Your task to perform on an android device: Open notification settings Image 0: 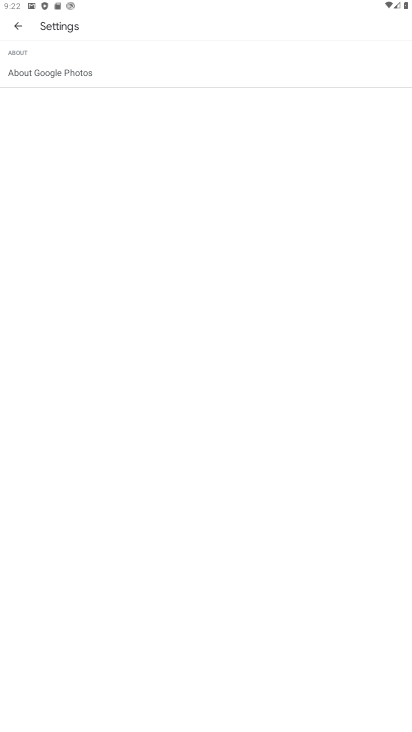
Step 0: press home button
Your task to perform on an android device: Open notification settings Image 1: 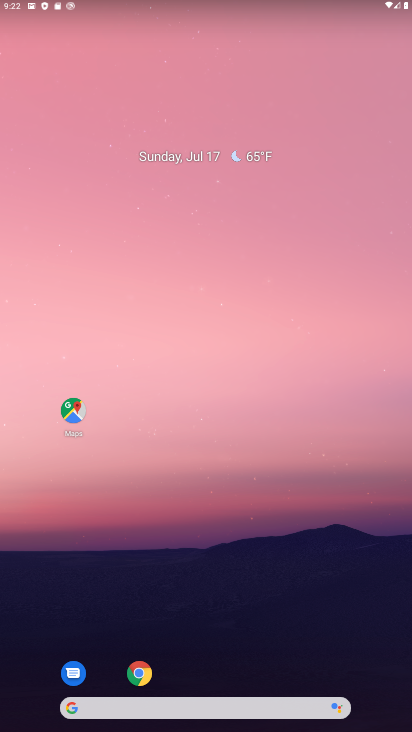
Step 1: drag from (218, 610) to (187, 135)
Your task to perform on an android device: Open notification settings Image 2: 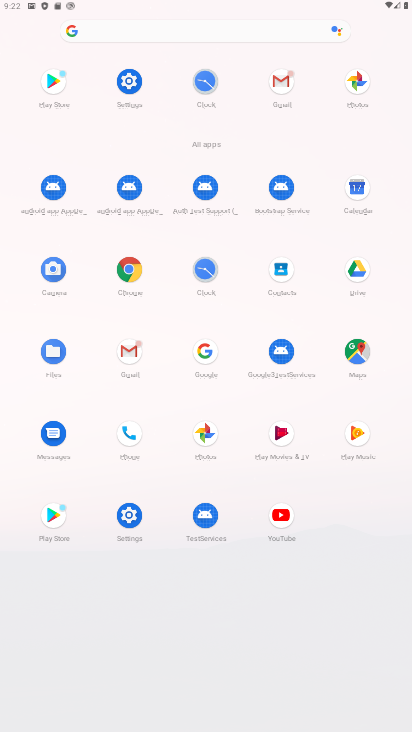
Step 2: click (128, 78)
Your task to perform on an android device: Open notification settings Image 3: 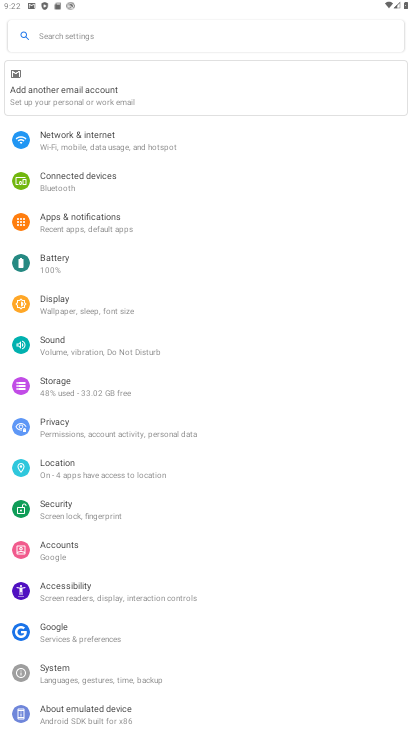
Step 3: click (91, 216)
Your task to perform on an android device: Open notification settings Image 4: 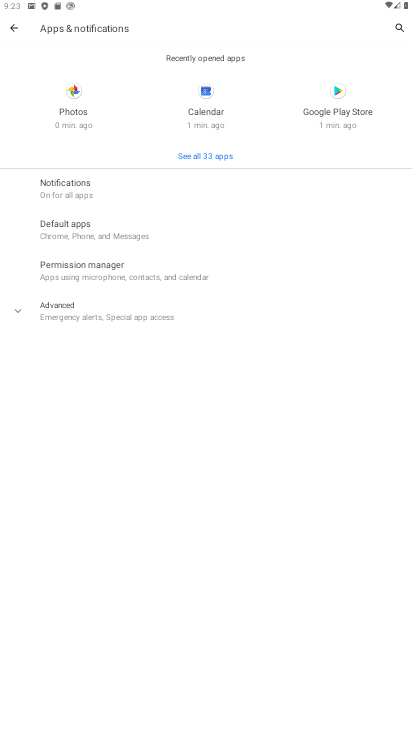
Step 4: task complete